Your task to perform on an android device: Go to settings Image 0: 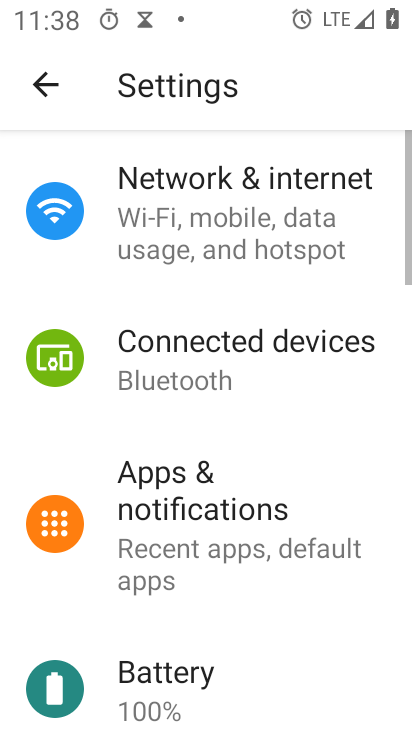
Step 0: press home button
Your task to perform on an android device: Go to settings Image 1: 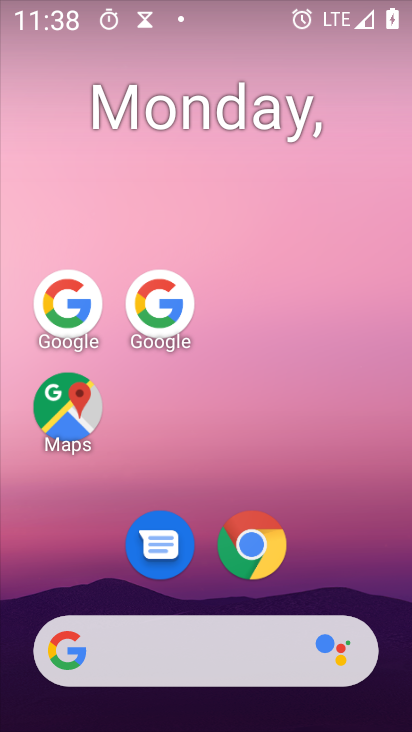
Step 1: drag from (193, 663) to (280, 113)
Your task to perform on an android device: Go to settings Image 2: 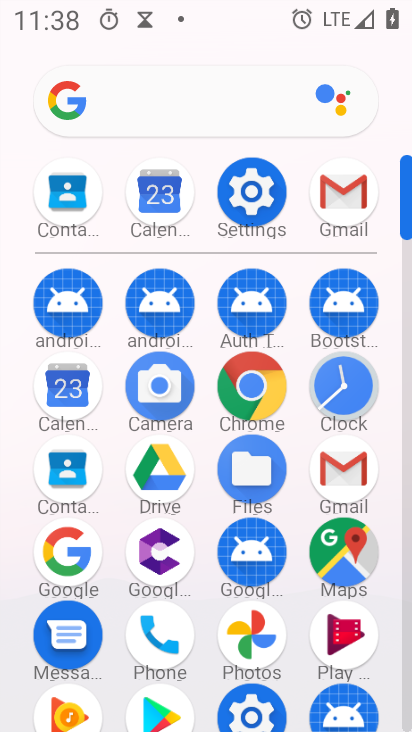
Step 2: click (252, 200)
Your task to perform on an android device: Go to settings Image 3: 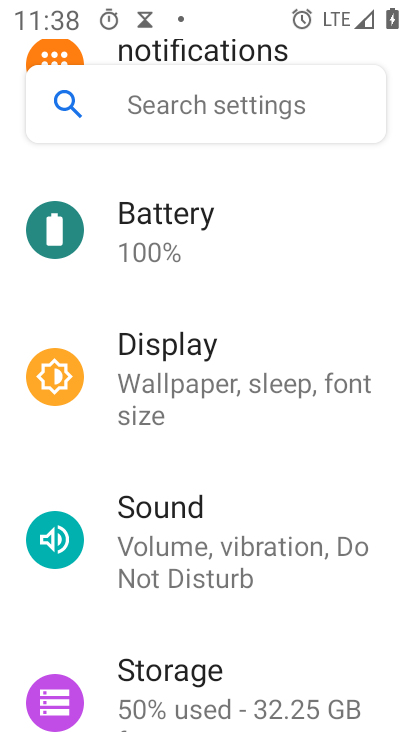
Step 3: task complete